Your task to perform on an android device: open chrome privacy settings Image 0: 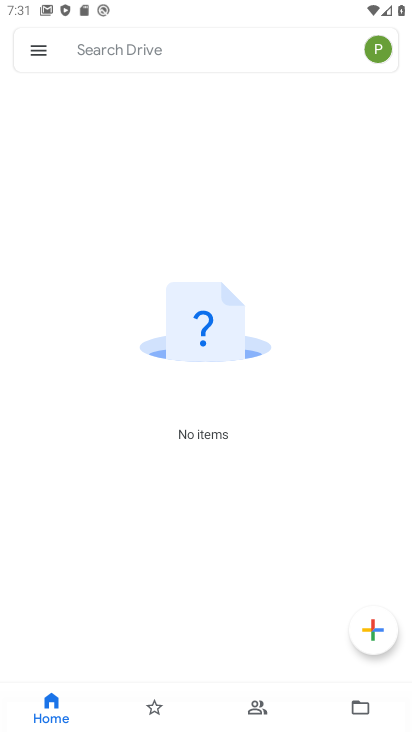
Step 0: press home button
Your task to perform on an android device: open chrome privacy settings Image 1: 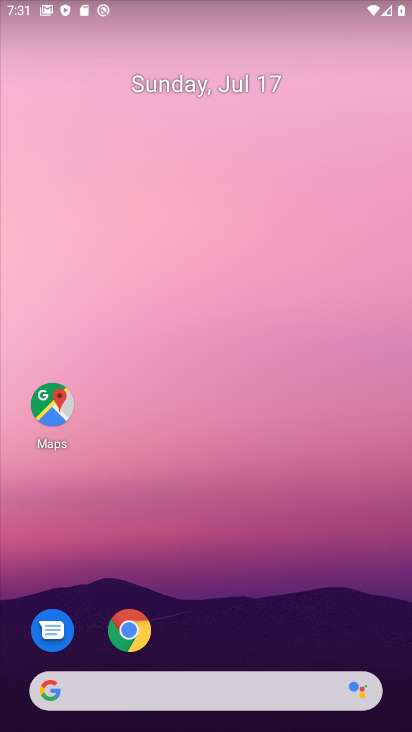
Step 1: click (127, 621)
Your task to perform on an android device: open chrome privacy settings Image 2: 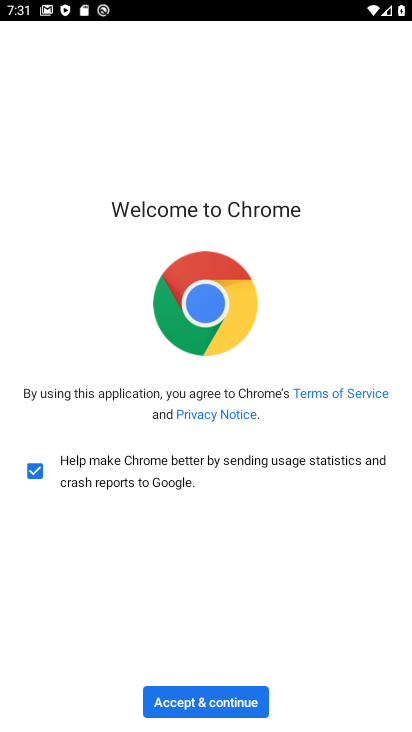
Step 2: click (214, 703)
Your task to perform on an android device: open chrome privacy settings Image 3: 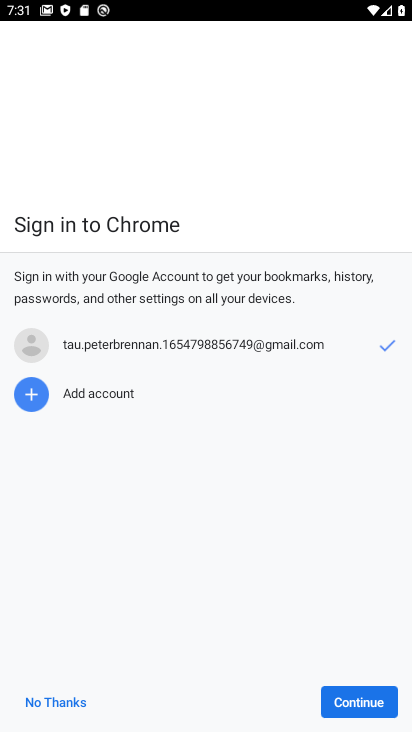
Step 3: click (342, 699)
Your task to perform on an android device: open chrome privacy settings Image 4: 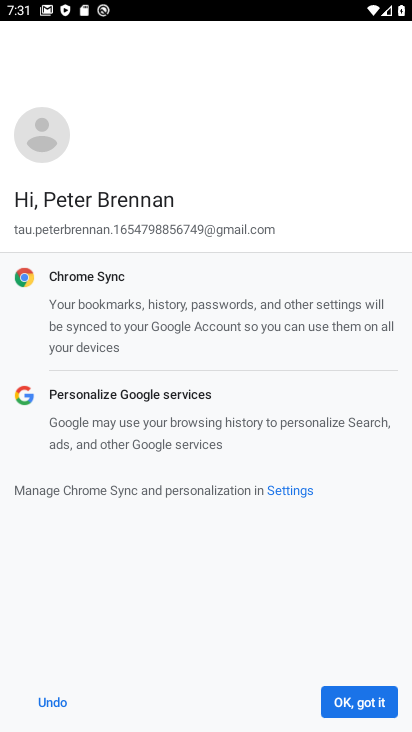
Step 4: click (352, 699)
Your task to perform on an android device: open chrome privacy settings Image 5: 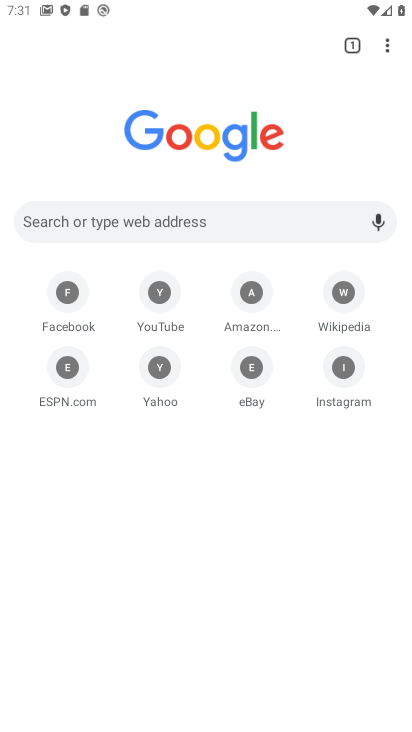
Step 5: click (387, 42)
Your task to perform on an android device: open chrome privacy settings Image 6: 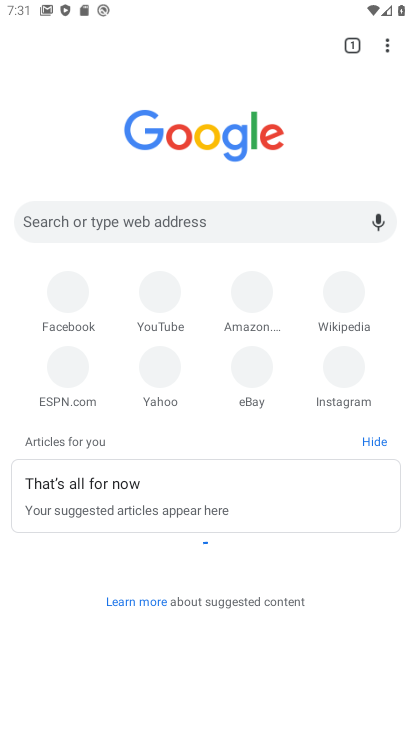
Step 6: click (398, 44)
Your task to perform on an android device: open chrome privacy settings Image 7: 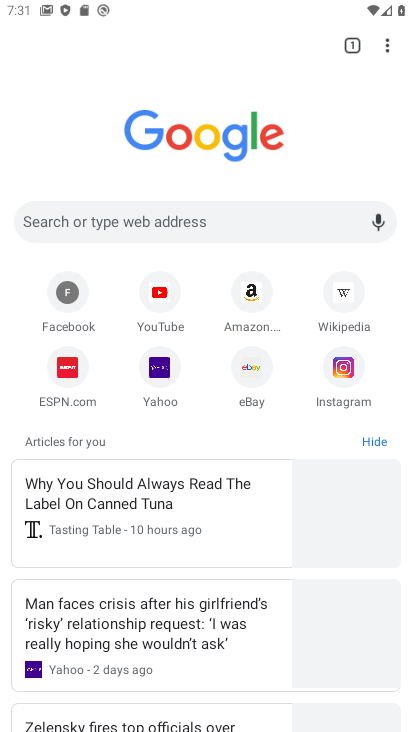
Step 7: click (397, 38)
Your task to perform on an android device: open chrome privacy settings Image 8: 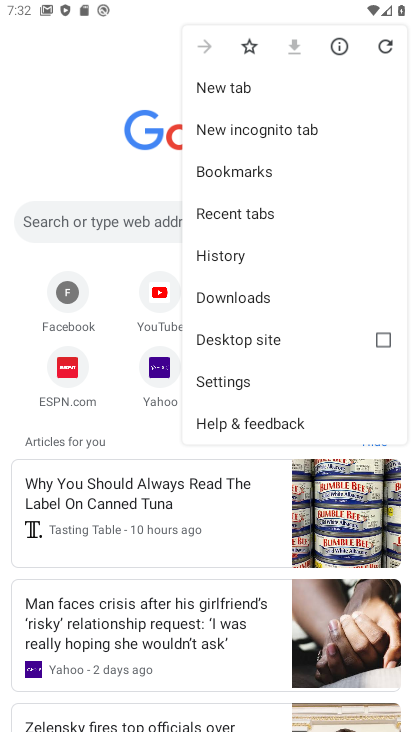
Step 8: click (230, 384)
Your task to perform on an android device: open chrome privacy settings Image 9: 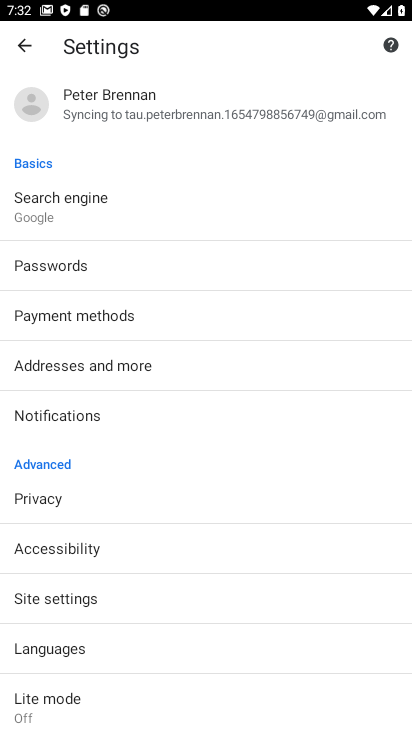
Step 9: click (93, 493)
Your task to perform on an android device: open chrome privacy settings Image 10: 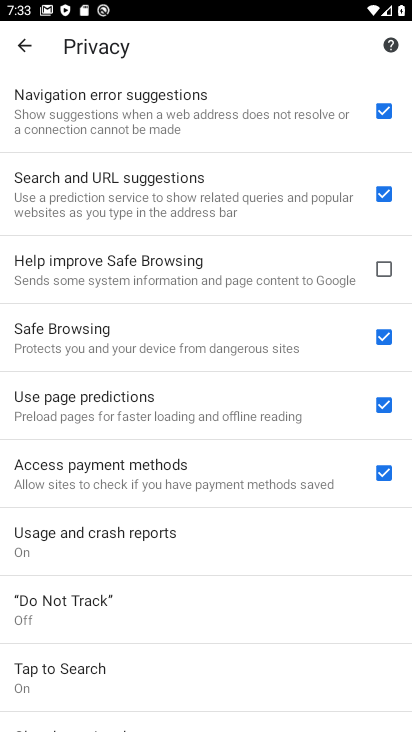
Step 10: task complete